Your task to perform on an android device: Open the calendar and show me this week's events Image 0: 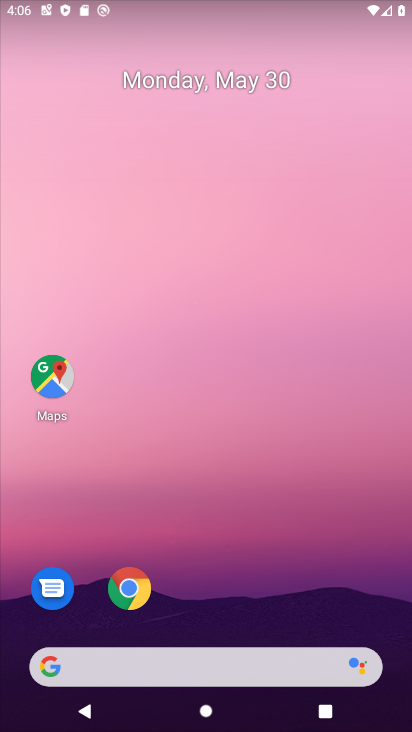
Step 0: drag from (248, 619) to (257, 77)
Your task to perform on an android device: Open the calendar and show me this week's events Image 1: 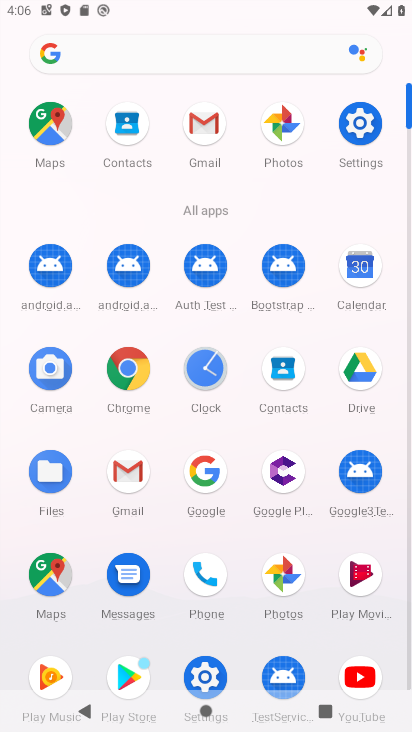
Step 1: click (360, 277)
Your task to perform on an android device: Open the calendar and show me this week's events Image 2: 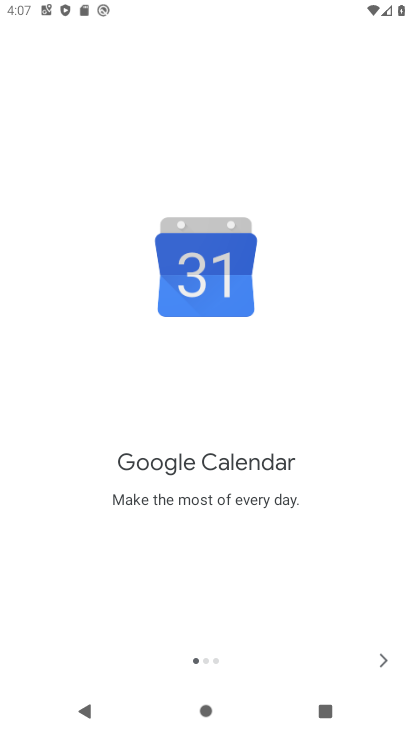
Step 2: click (386, 658)
Your task to perform on an android device: Open the calendar and show me this week's events Image 3: 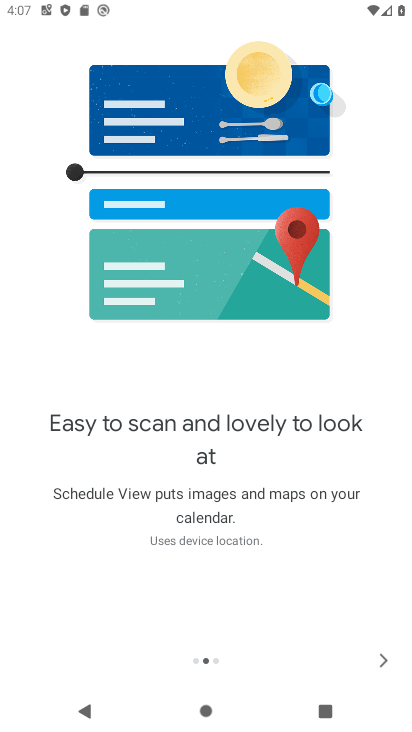
Step 3: click (376, 654)
Your task to perform on an android device: Open the calendar and show me this week's events Image 4: 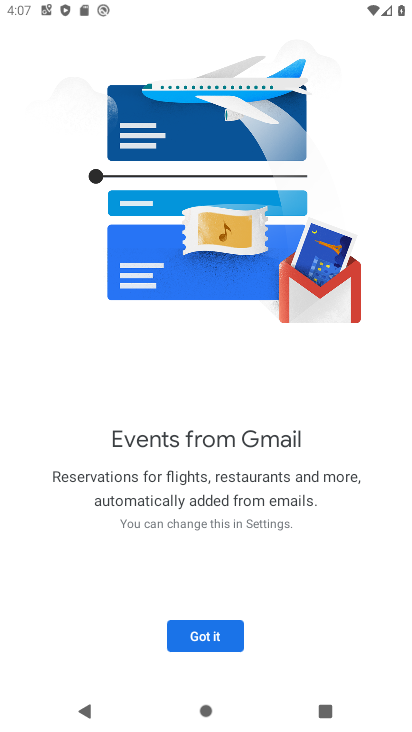
Step 4: click (375, 653)
Your task to perform on an android device: Open the calendar and show me this week's events Image 5: 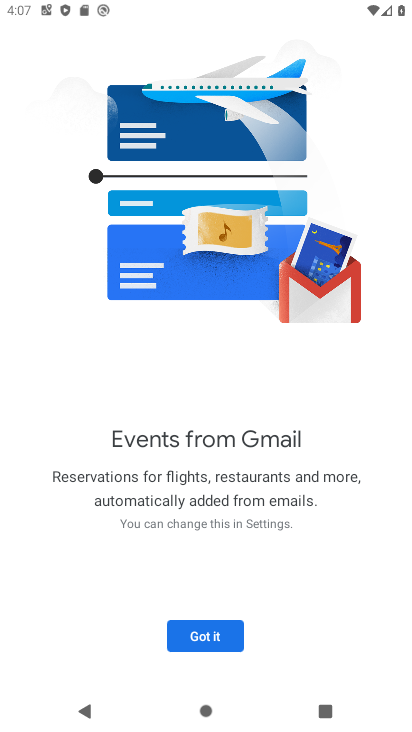
Step 5: click (225, 627)
Your task to perform on an android device: Open the calendar and show me this week's events Image 6: 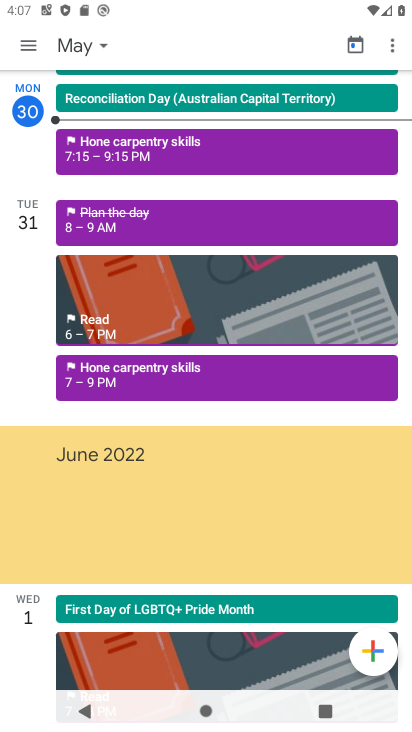
Step 6: click (28, 45)
Your task to perform on an android device: Open the calendar and show me this week's events Image 7: 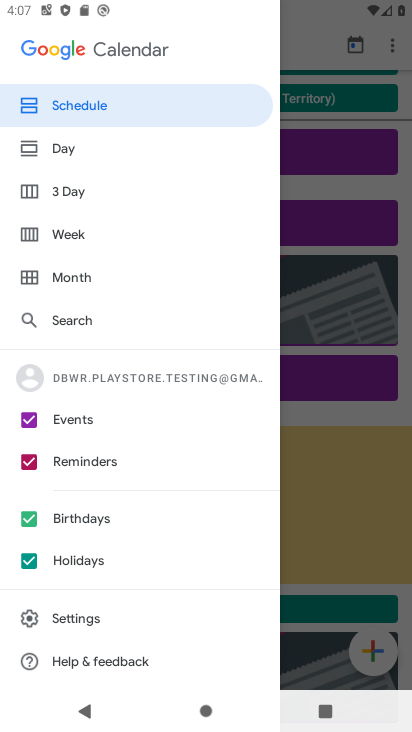
Step 7: click (330, 415)
Your task to perform on an android device: Open the calendar and show me this week's events Image 8: 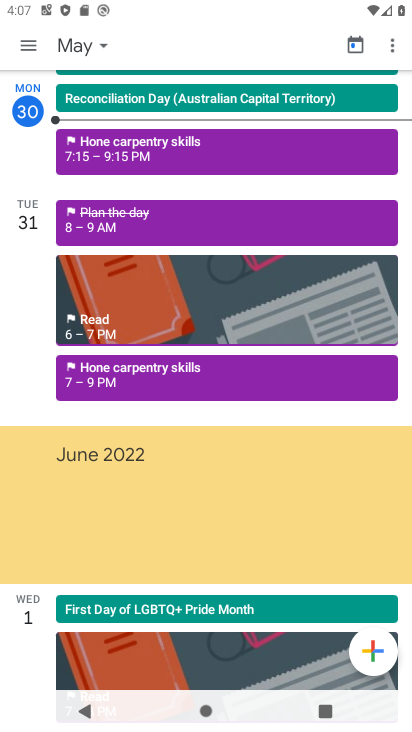
Step 8: task complete